Your task to perform on an android device: open app "Truecaller" Image 0: 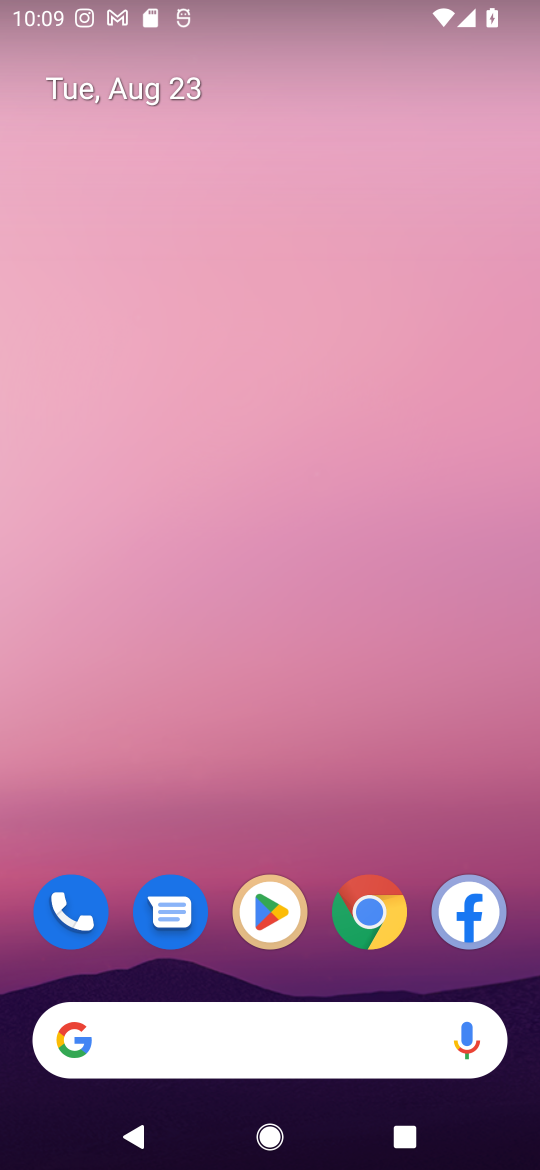
Step 0: click (272, 911)
Your task to perform on an android device: open app "Truecaller" Image 1: 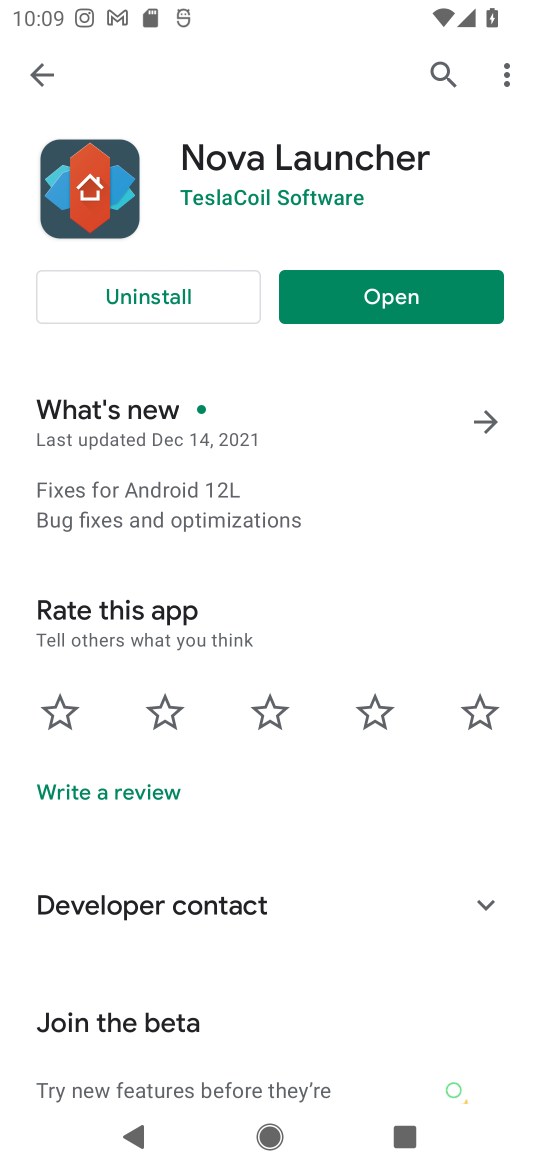
Step 1: click (435, 70)
Your task to perform on an android device: open app "Truecaller" Image 2: 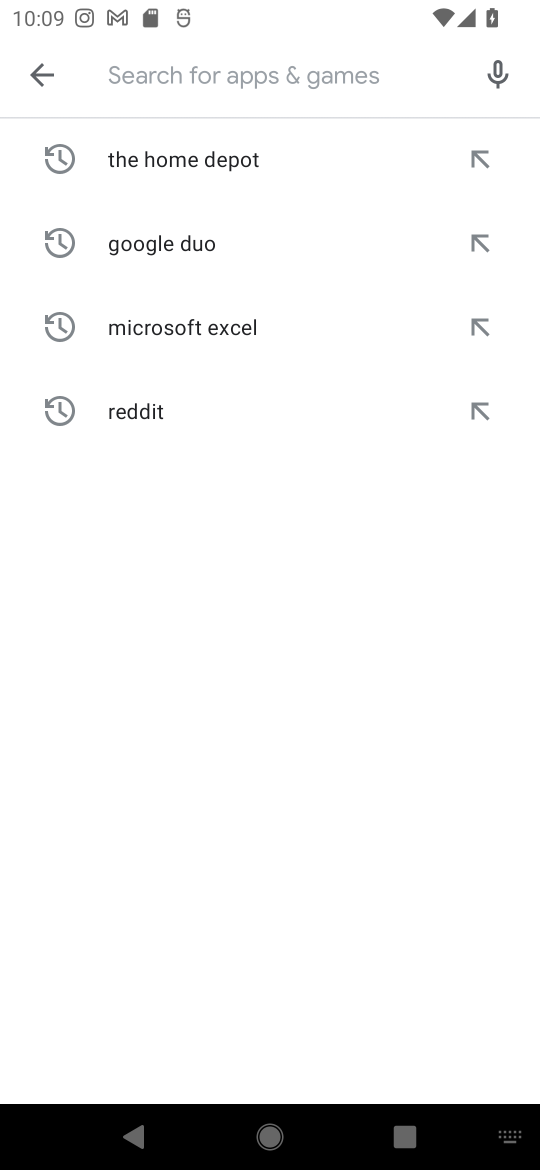
Step 2: type "Truecaller"
Your task to perform on an android device: open app "Truecaller" Image 3: 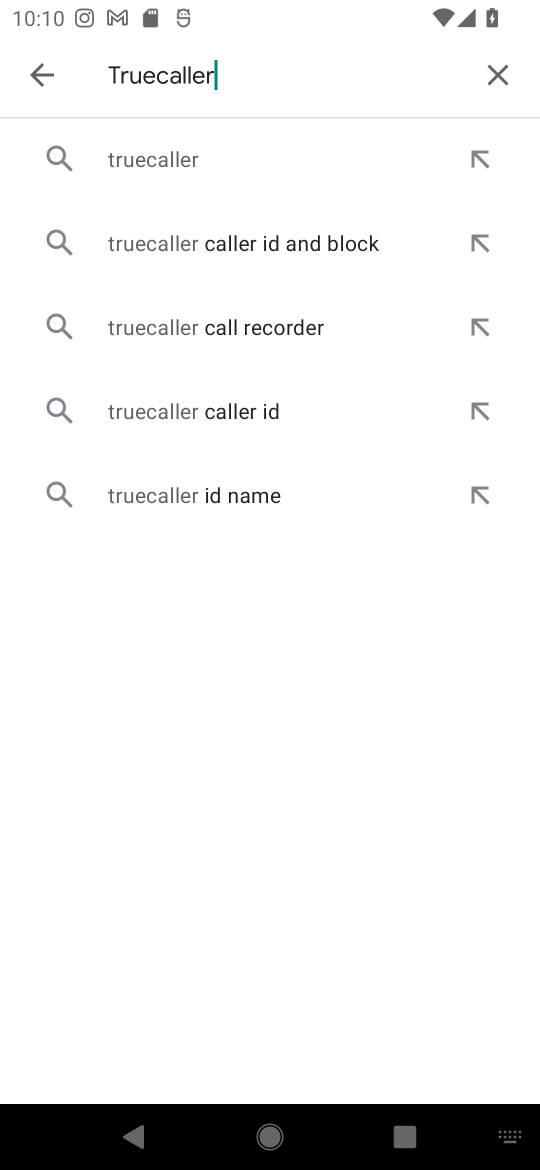
Step 3: click (151, 162)
Your task to perform on an android device: open app "Truecaller" Image 4: 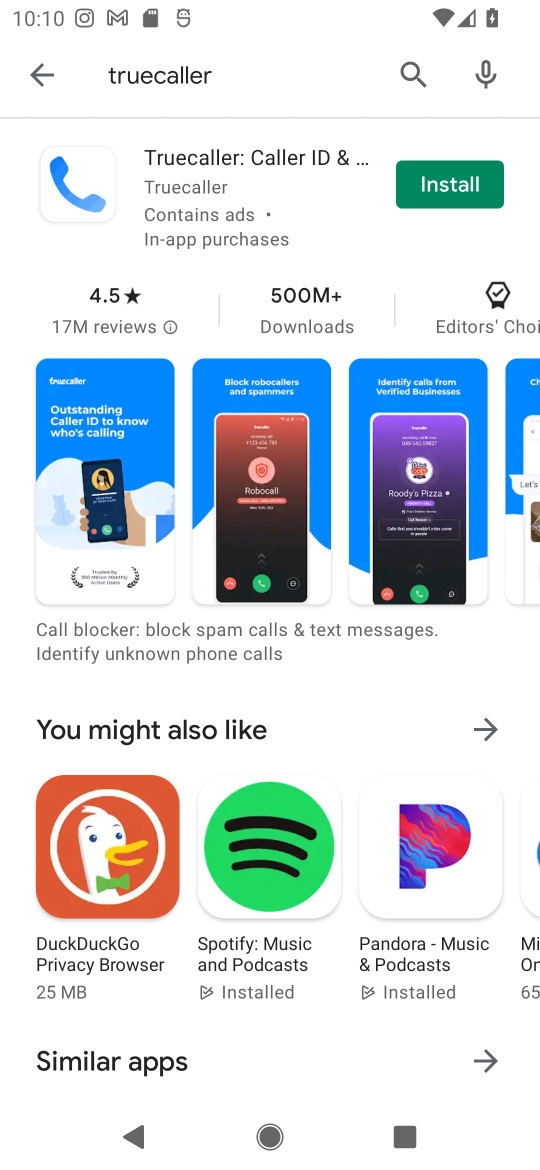
Step 4: task complete